Your task to perform on an android device: Go to display settings Image 0: 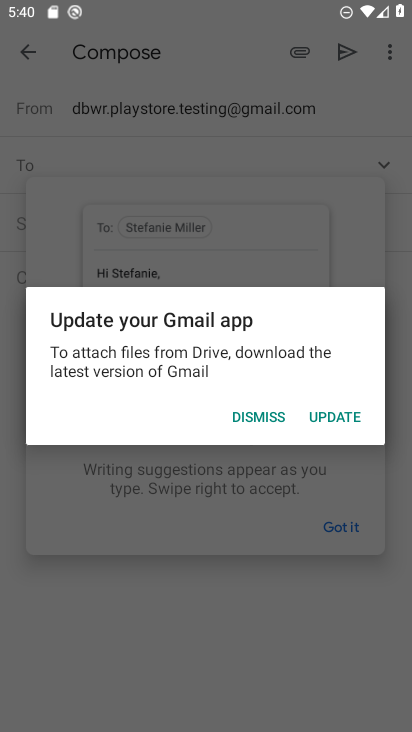
Step 0: press home button
Your task to perform on an android device: Go to display settings Image 1: 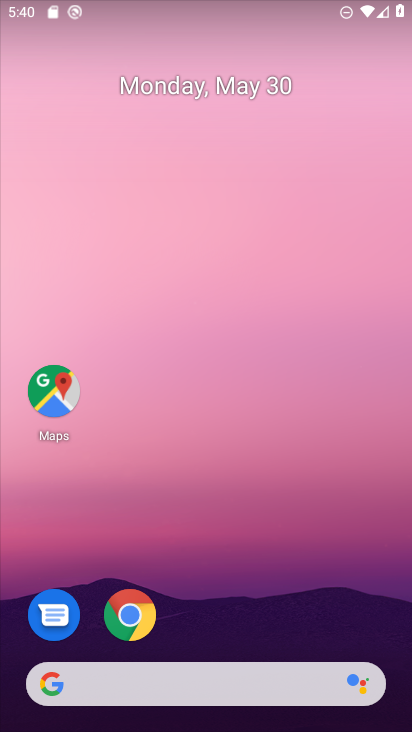
Step 1: drag from (217, 611) to (236, 3)
Your task to perform on an android device: Go to display settings Image 2: 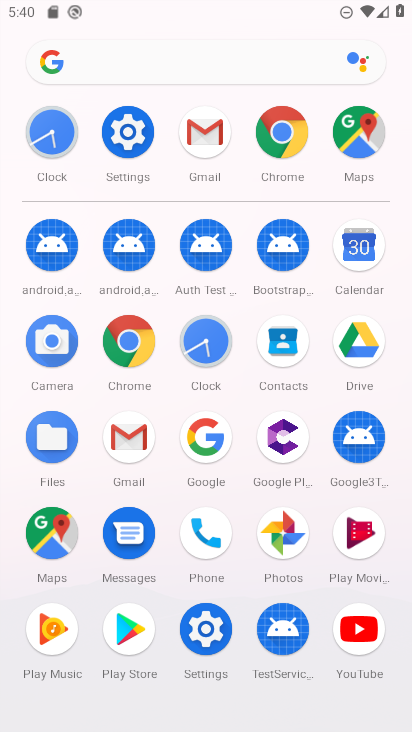
Step 2: click (114, 108)
Your task to perform on an android device: Go to display settings Image 3: 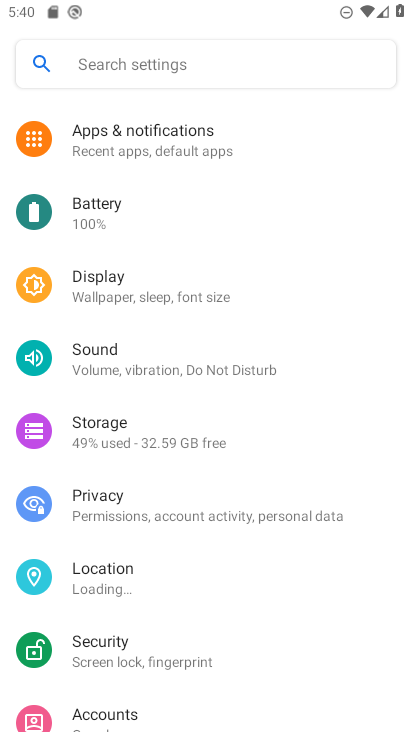
Step 3: click (127, 281)
Your task to perform on an android device: Go to display settings Image 4: 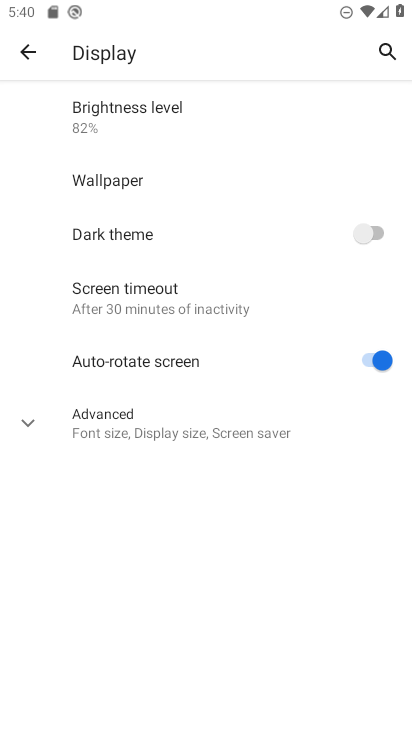
Step 4: task complete